Your task to perform on an android device: Go to wifi settings Image 0: 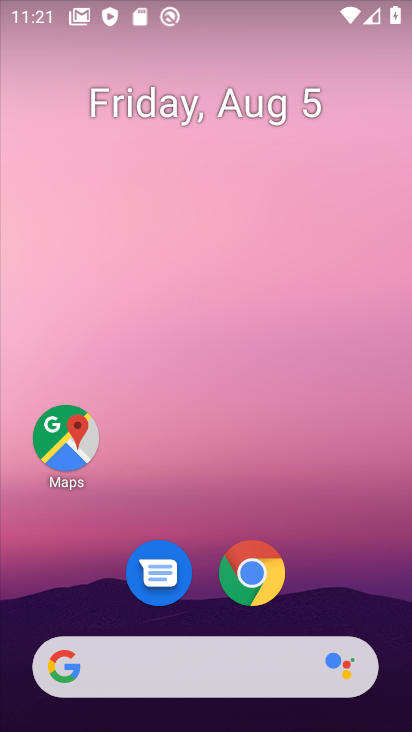
Step 0: drag from (257, 414) to (291, 147)
Your task to perform on an android device: Go to wifi settings Image 1: 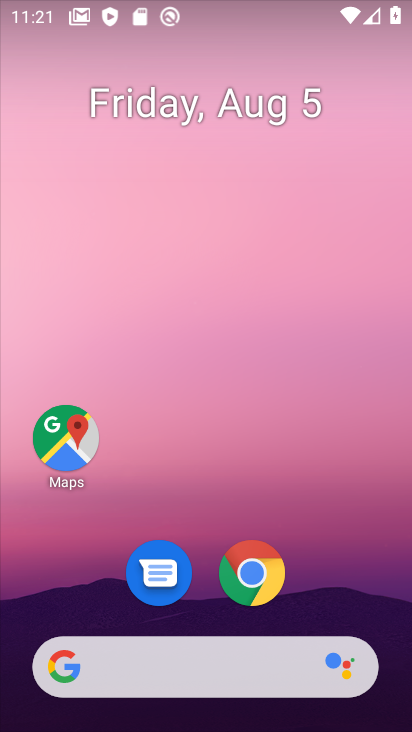
Step 1: drag from (219, 490) to (267, 97)
Your task to perform on an android device: Go to wifi settings Image 2: 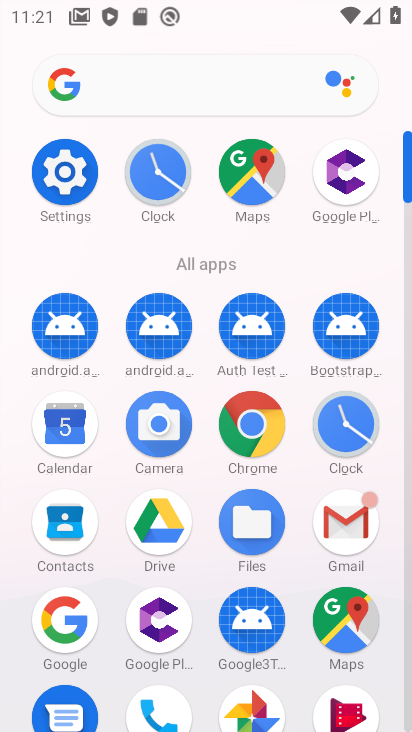
Step 2: click (84, 165)
Your task to perform on an android device: Go to wifi settings Image 3: 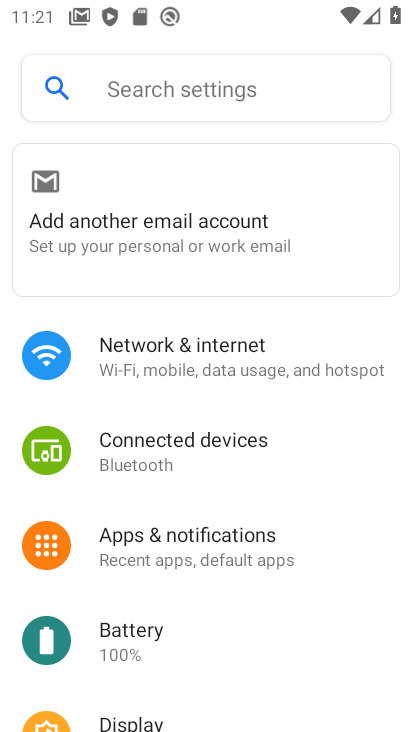
Step 3: task complete